Your task to perform on an android device: set the stopwatch Image 0: 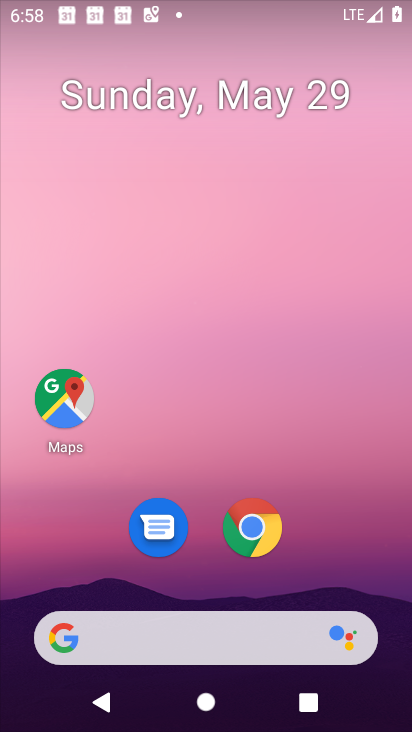
Step 0: drag from (403, 613) to (321, 43)
Your task to perform on an android device: set the stopwatch Image 1: 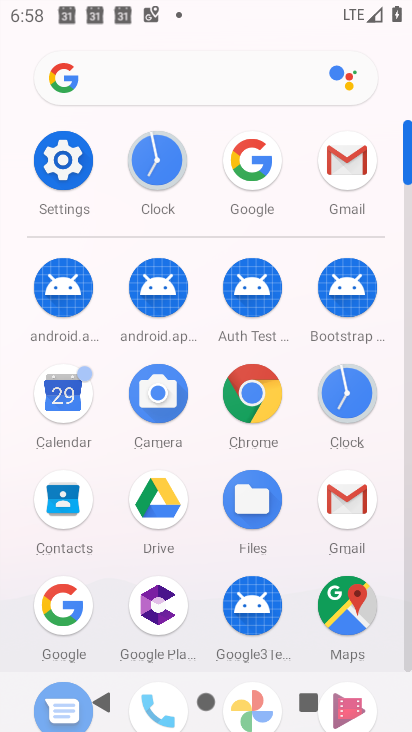
Step 1: click (355, 380)
Your task to perform on an android device: set the stopwatch Image 2: 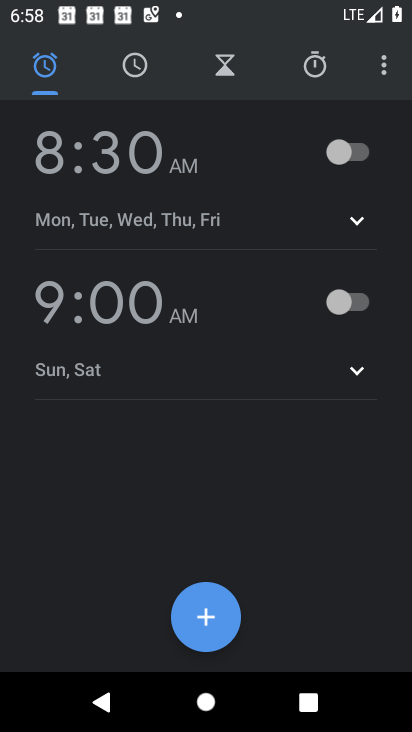
Step 2: click (302, 55)
Your task to perform on an android device: set the stopwatch Image 3: 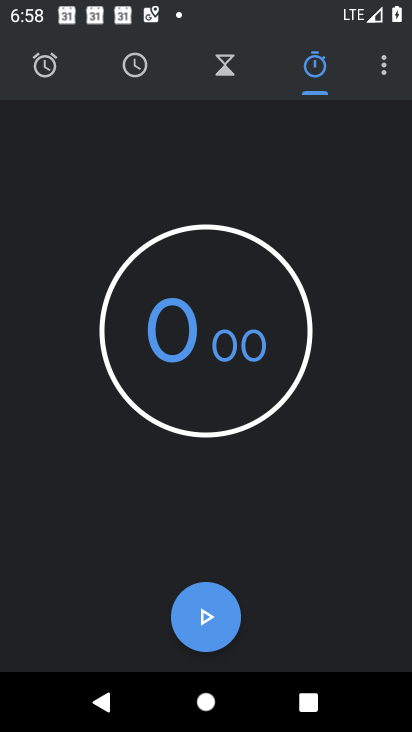
Step 3: click (208, 615)
Your task to perform on an android device: set the stopwatch Image 4: 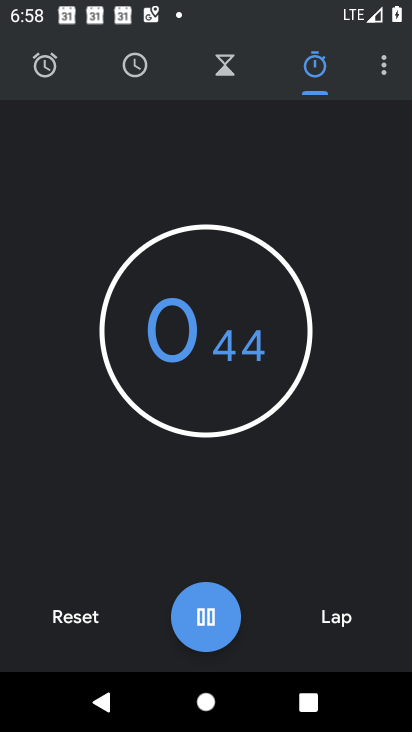
Step 4: click (208, 615)
Your task to perform on an android device: set the stopwatch Image 5: 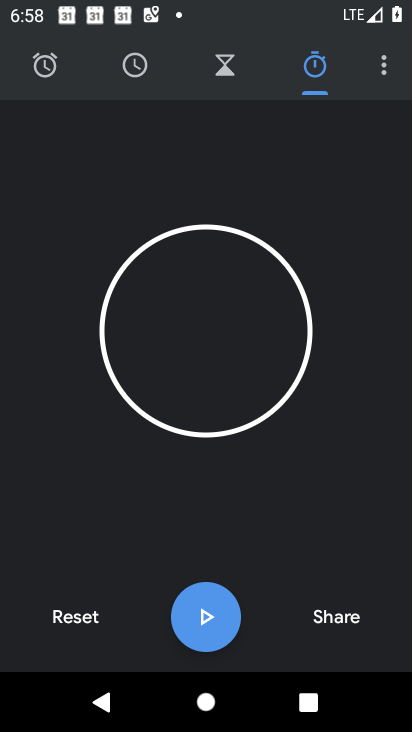
Step 5: task complete